Your task to perform on an android device: Go to privacy settings Image 0: 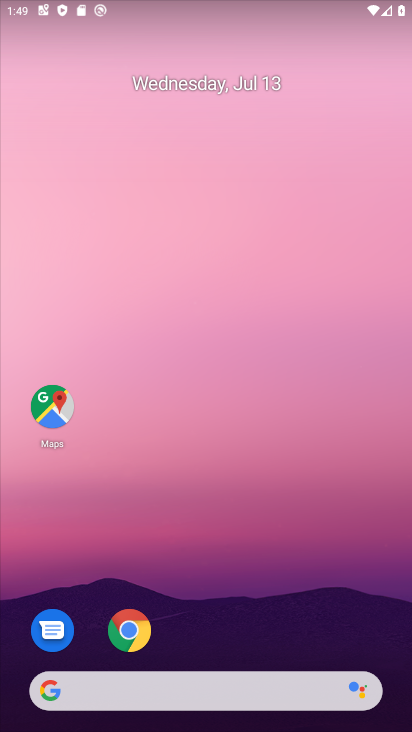
Step 0: drag from (304, 607) to (333, 178)
Your task to perform on an android device: Go to privacy settings Image 1: 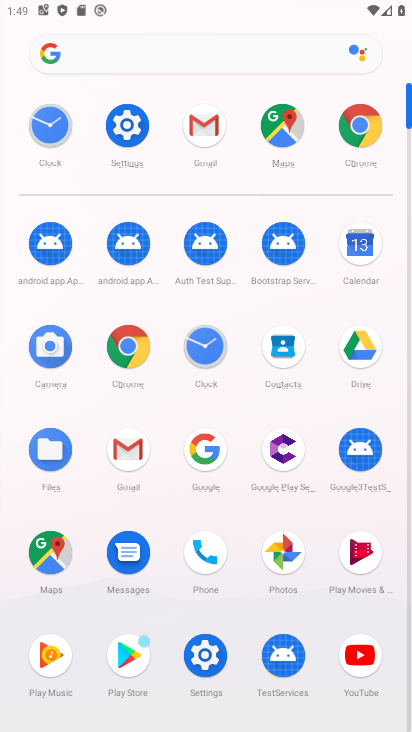
Step 1: click (131, 129)
Your task to perform on an android device: Go to privacy settings Image 2: 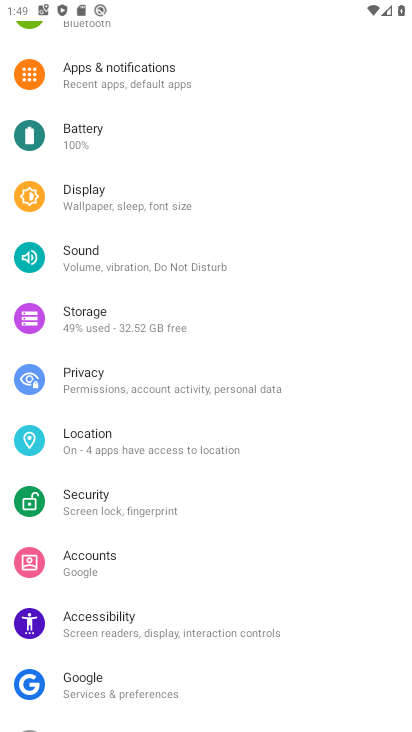
Step 2: drag from (357, 384) to (359, 281)
Your task to perform on an android device: Go to privacy settings Image 3: 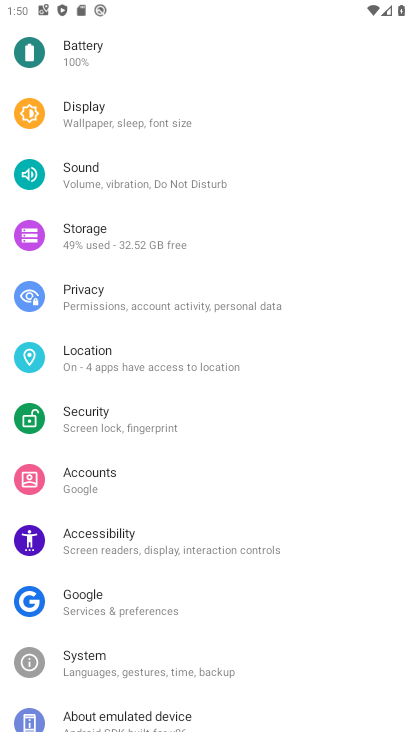
Step 3: drag from (345, 373) to (352, 278)
Your task to perform on an android device: Go to privacy settings Image 4: 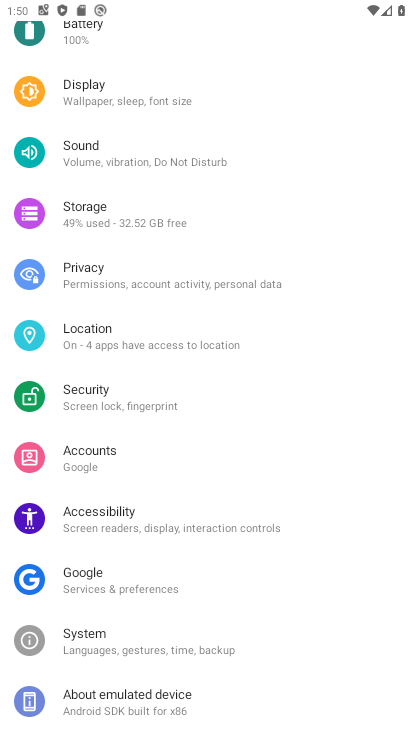
Step 4: click (283, 267)
Your task to perform on an android device: Go to privacy settings Image 5: 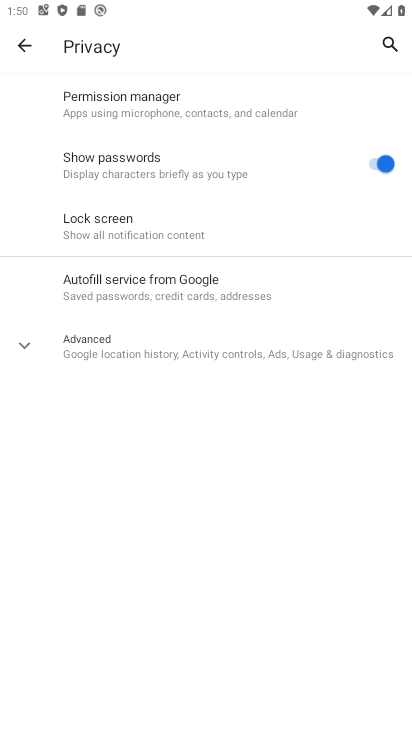
Step 5: task complete